Your task to perform on an android device: Open Amazon Image 0: 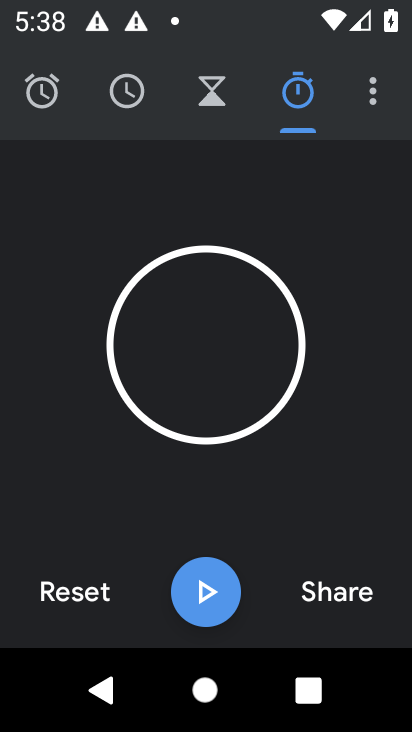
Step 0: press home button
Your task to perform on an android device: Open Amazon Image 1: 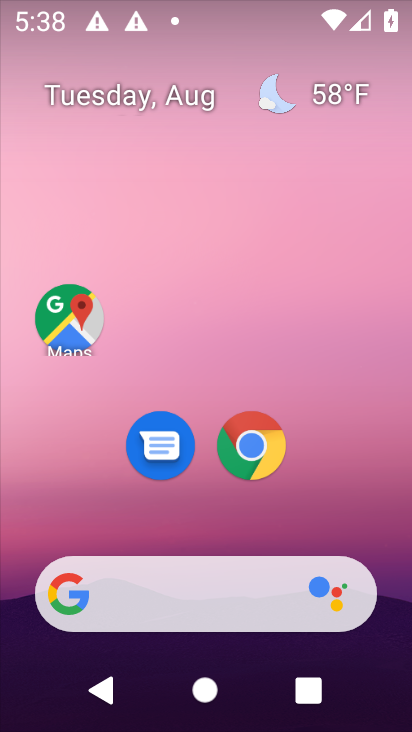
Step 1: click (249, 451)
Your task to perform on an android device: Open Amazon Image 2: 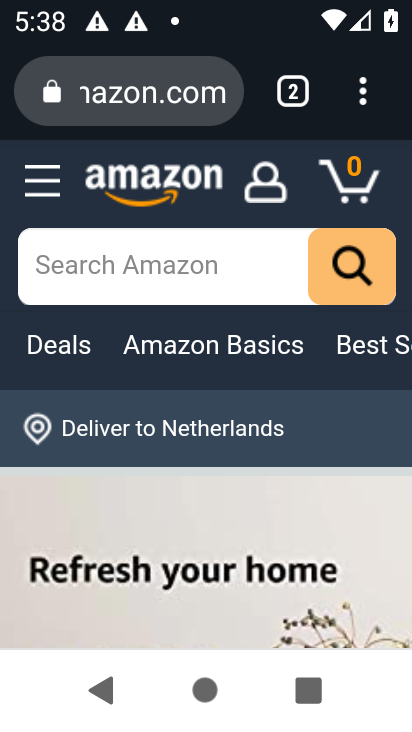
Step 2: task complete